Your task to perform on an android device: Open display settings Image 0: 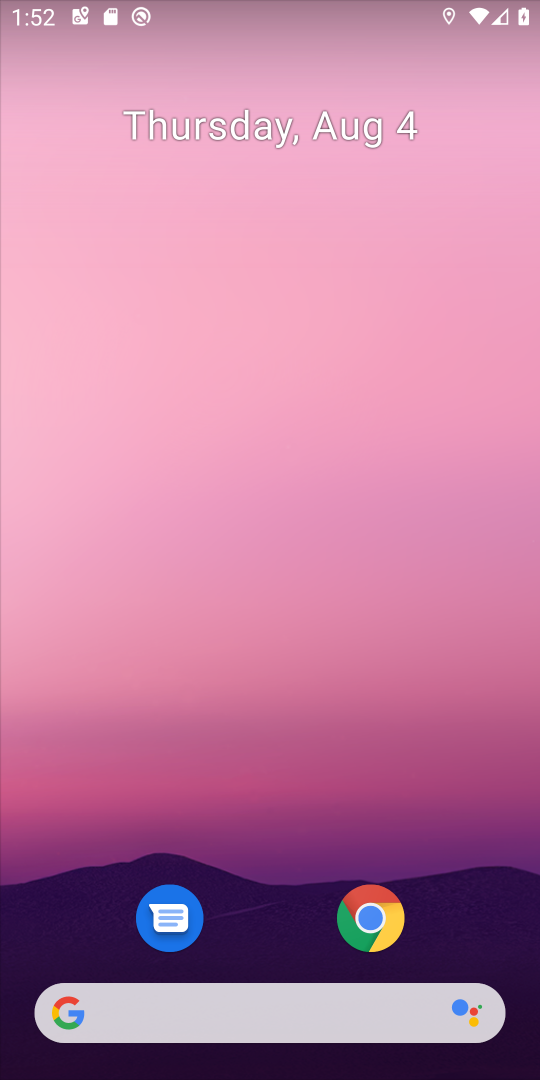
Step 0: drag from (269, 904) to (289, 383)
Your task to perform on an android device: Open display settings Image 1: 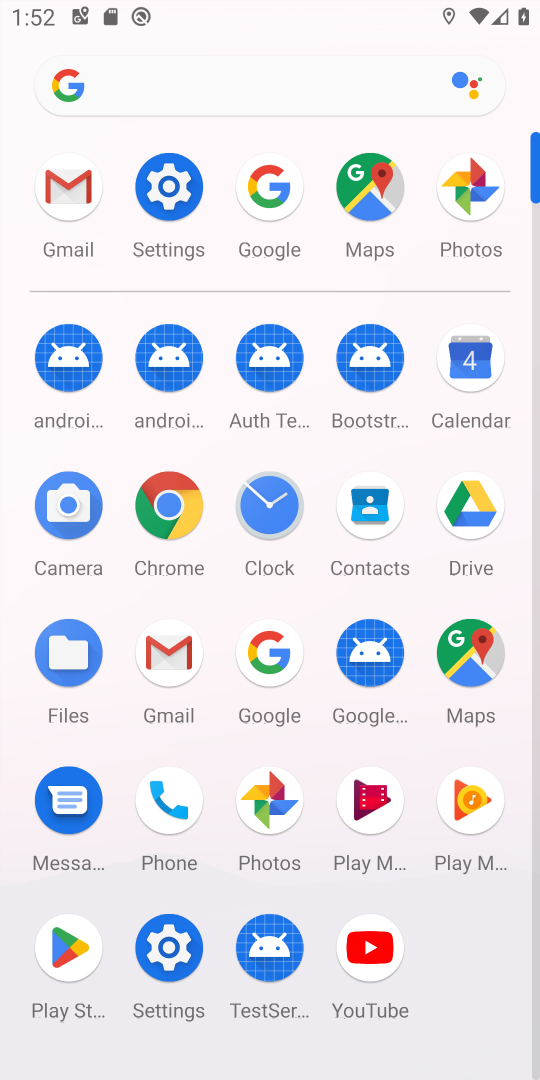
Step 1: click (188, 203)
Your task to perform on an android device: Open display settings Image 2: 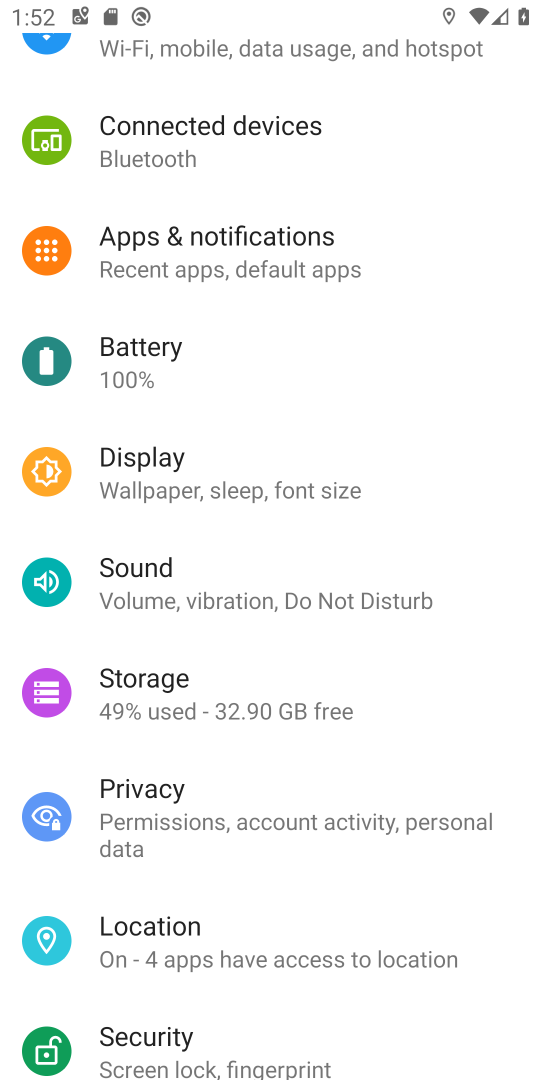
Step 2: click (203, 466)
Your task to perform on an android device: Open display settings Image 3: 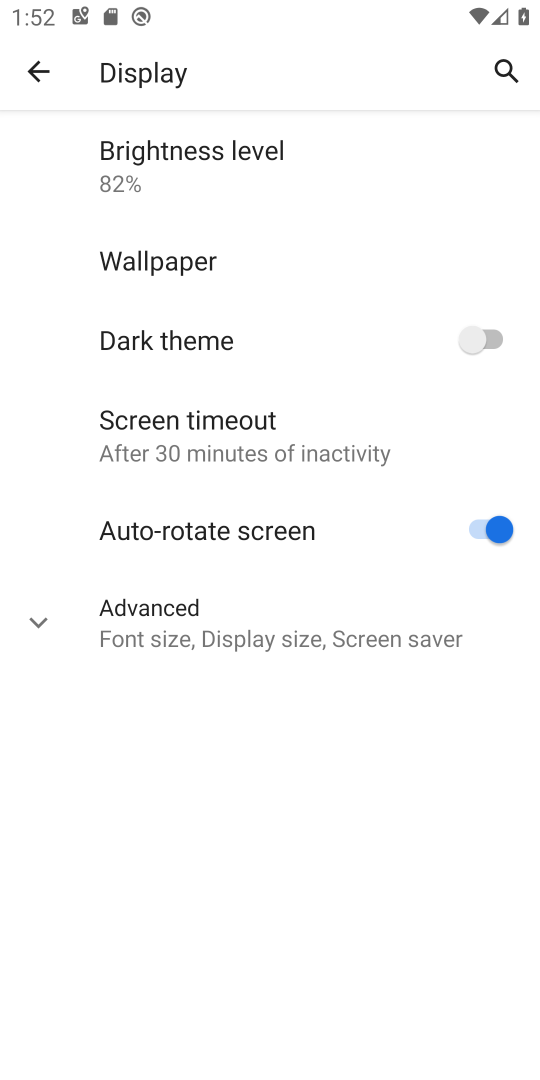
Step 3: task complete